Your task to perform on an android device: Open battery settings Image 0: 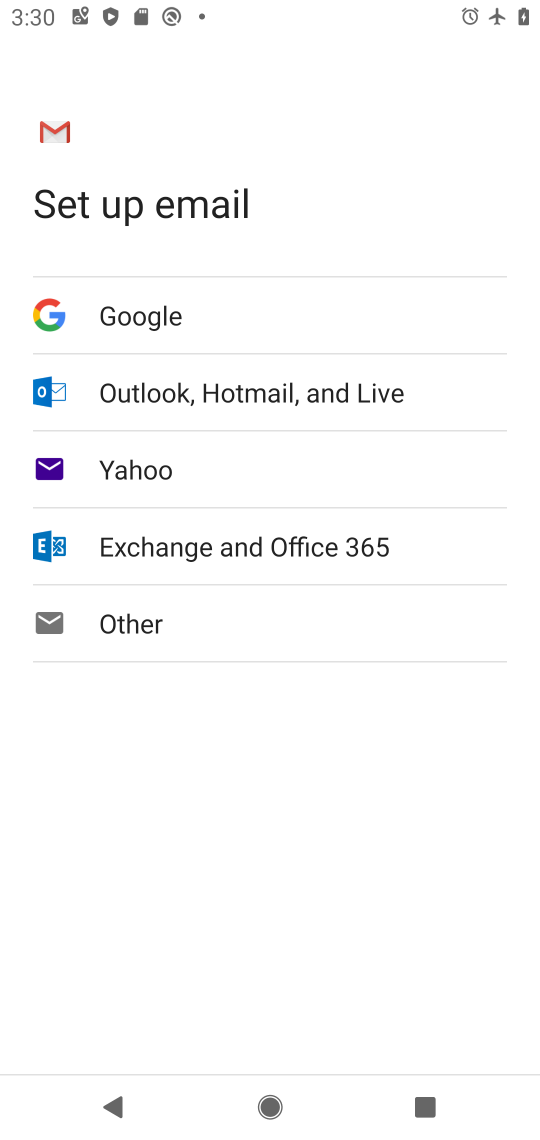
Step 0: press back button
Your task to perform on an android device: Open battery settings Image 1: 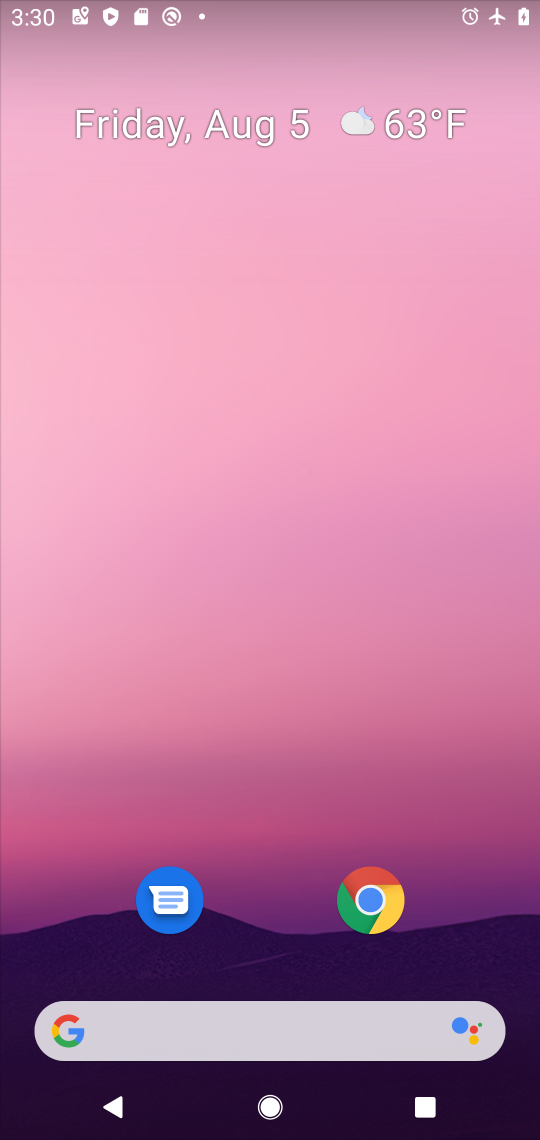
Step 1: drag from (277, 957) to (320, 48)
Your task to perform on an android device: Open battery settings Image 2: 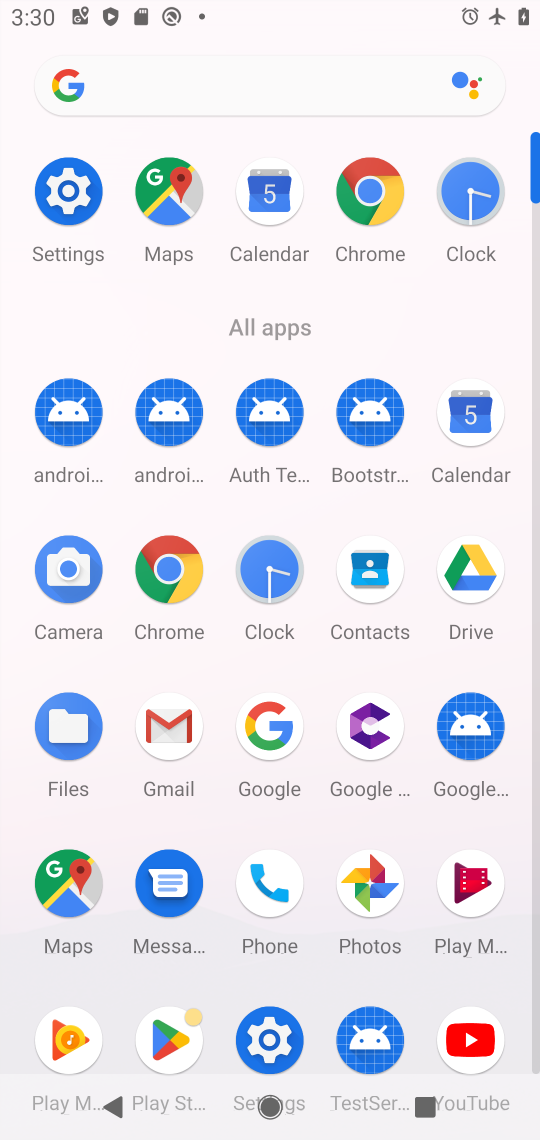
Step 2: click (67, 188)
Your task to perform on an android device: Open battery settings Image 3: 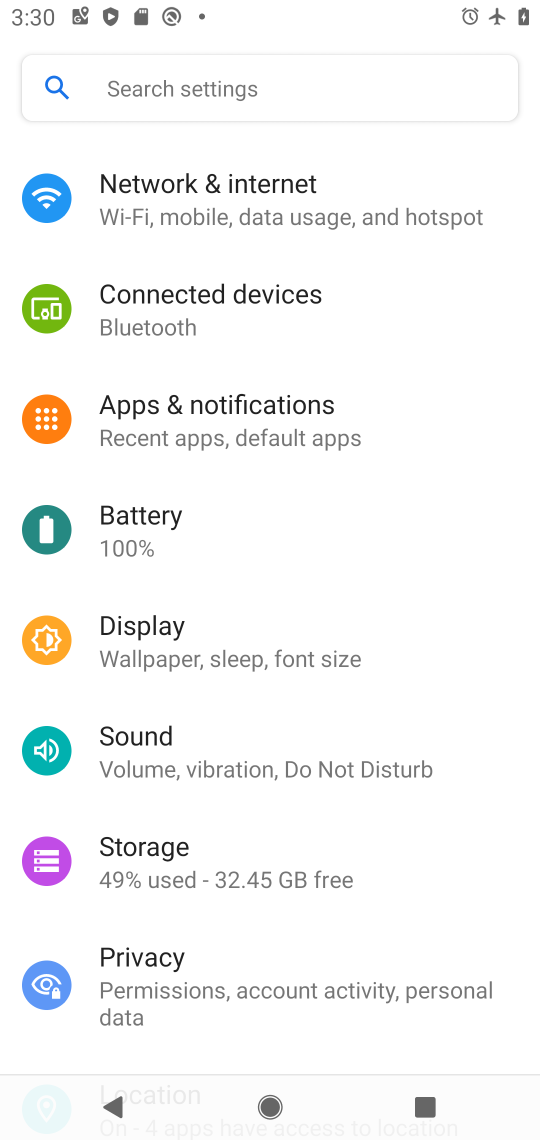
Step 3: click (189, 531)
Your task to perform on an android device: Open battery settings Image 4: 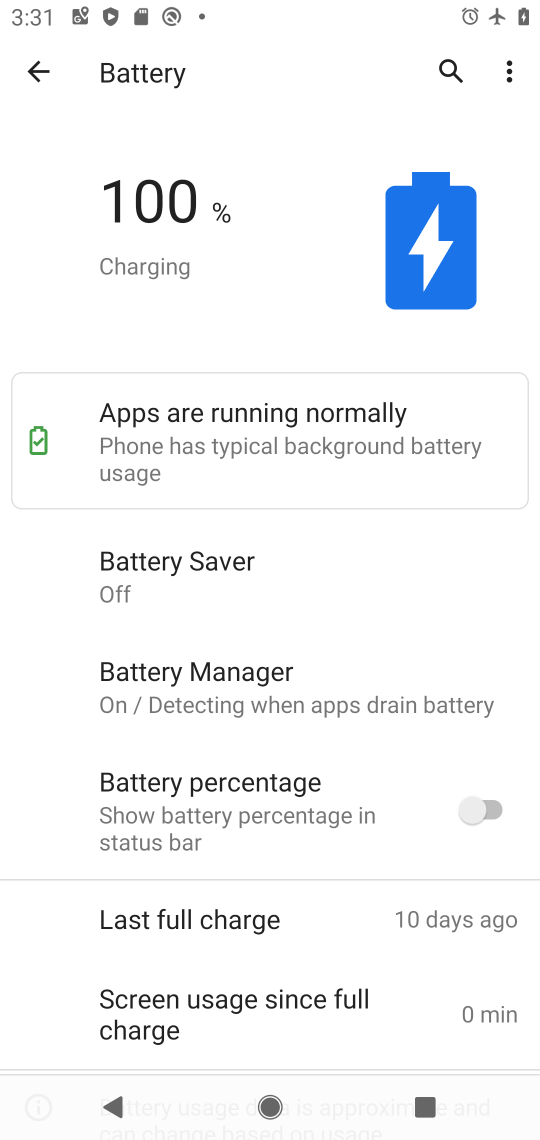
Step 4: task complete